Your task to perform on an android device: Go to Wikipedia Image 0: 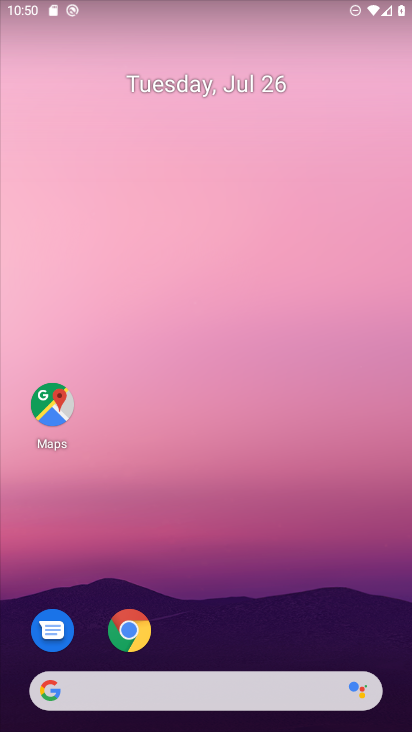
Step 0: click (127, 631)
Your task to perform on an android device: Go to Wikipedia Image 1: 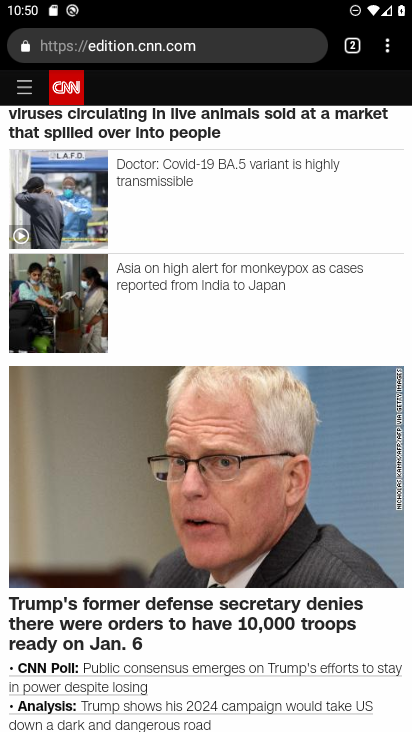
Step 1: click (223, 44)
Your task to perform on an android device: Go to Wikipedia Image 2: 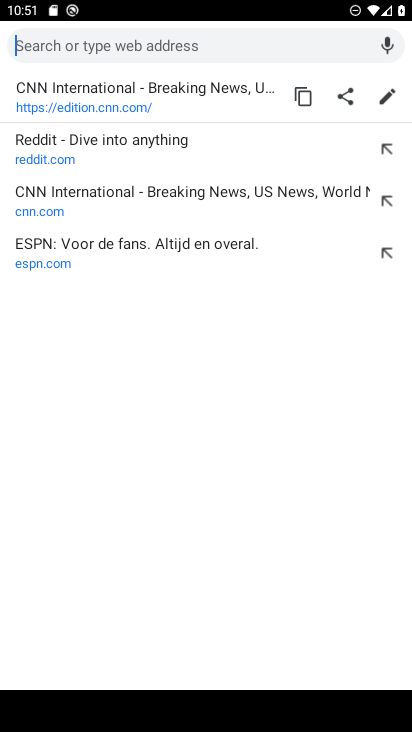
Step 2: type "wikipedia"
Your task to perform on an android device: Go to Wikipedia Image 3: 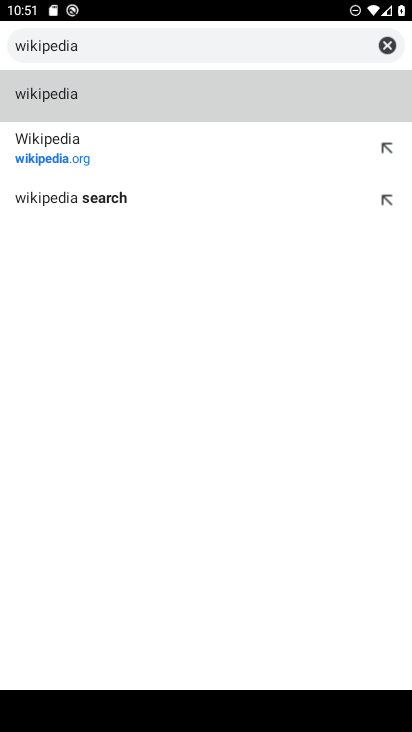
Step 3: click (58, 92)
Your task to perform on an android device: Go to Wikipedia Image 4: 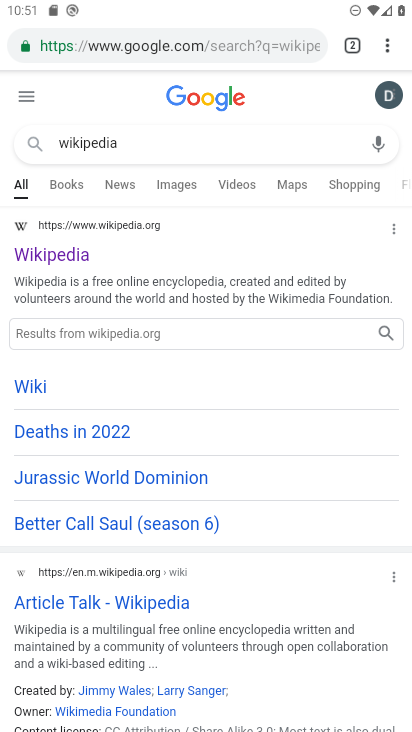
Step 4: click (57, 264)
Your task to perform on an android device: Go to Wikipedia Image 5: 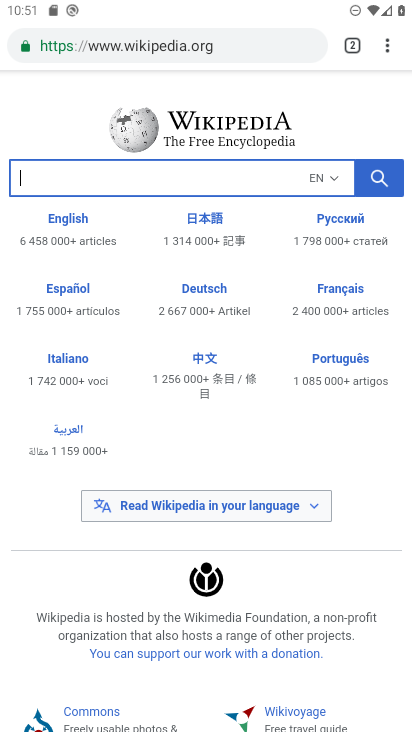
Step 5: task complete